Your task to perform on an android device: Open eBay Image 0: 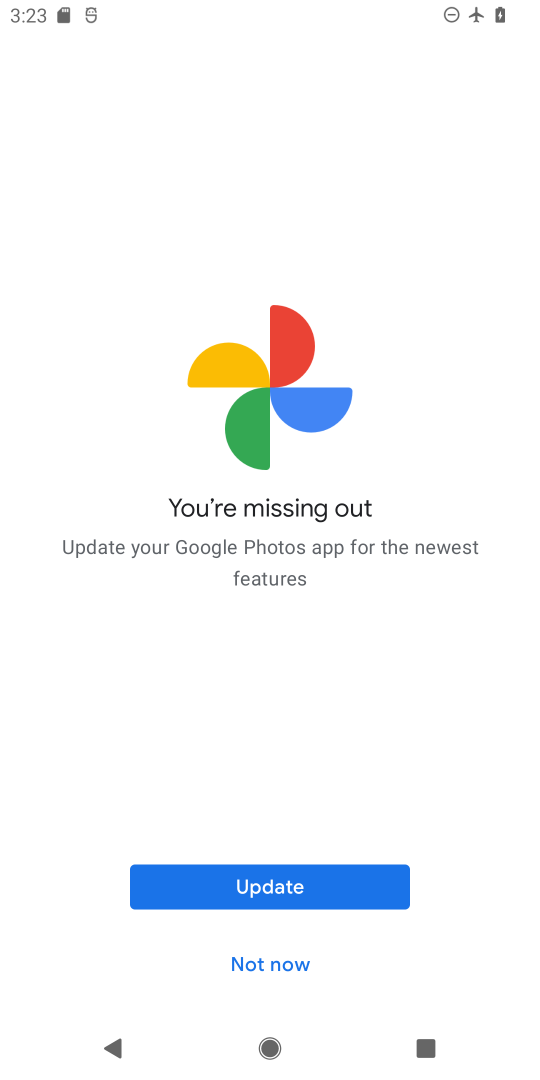
Step 0: press back button
Your task to perform on an android device: Open eBay Image 1: 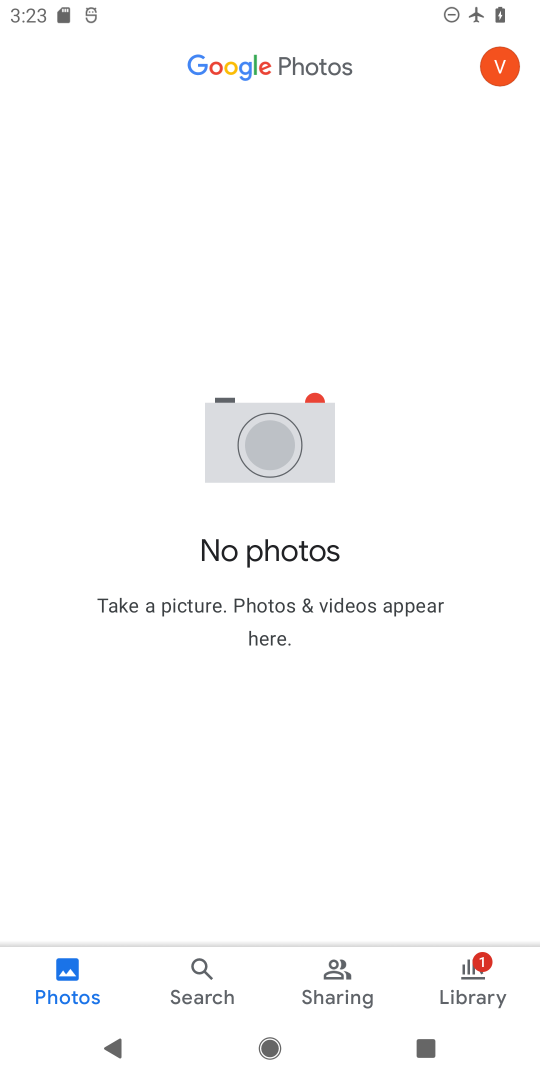
Step 1: press back button
Your task to perform on an android device: Open eBay Image 2: 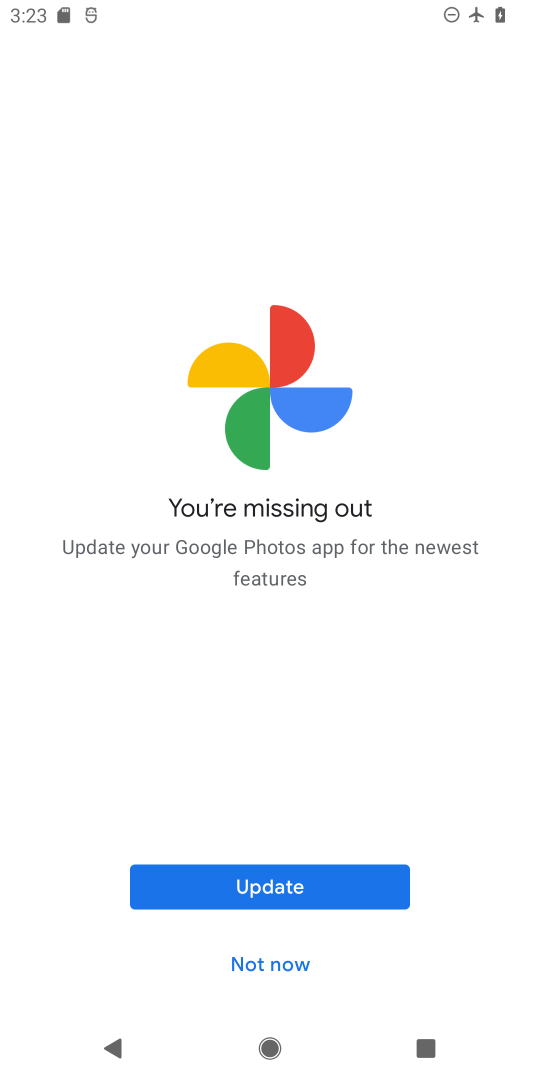
Step 2: press back button
Your task to perform on an android device: Open eBay Image 3: 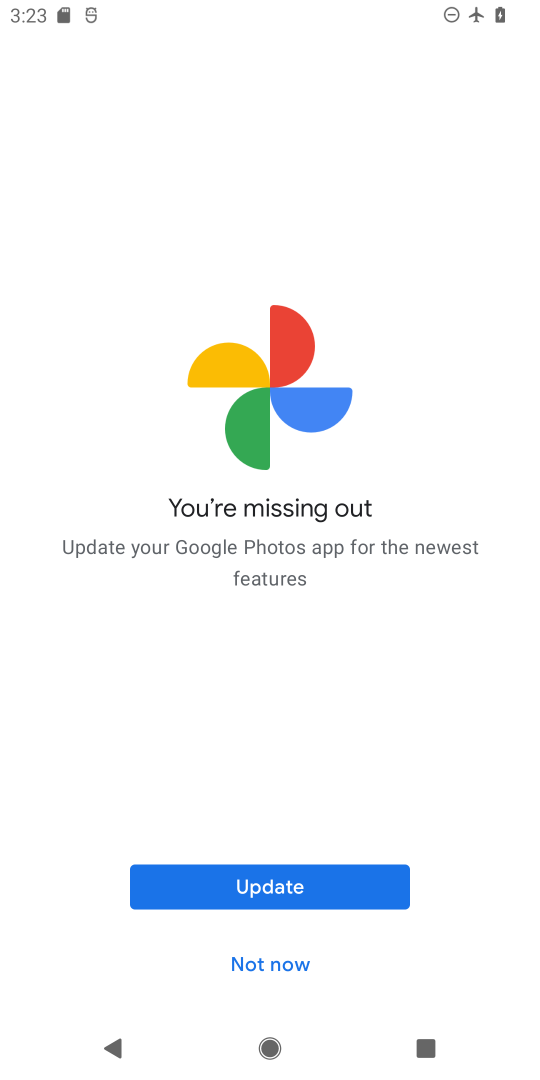
Step 3: press back button
Your task to perform on an android device: Open eBay Image 4: 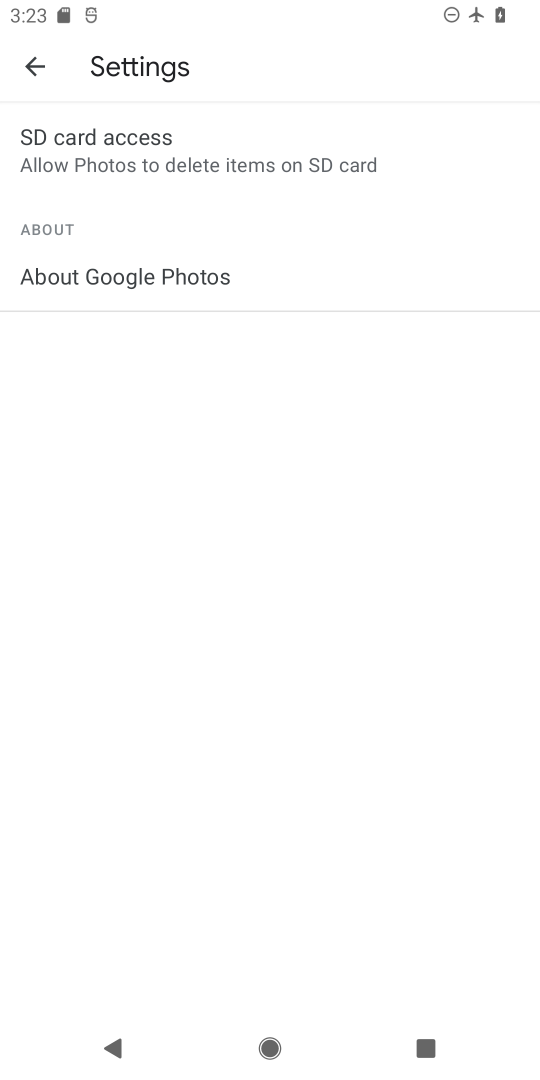
Step 4: press home button
Your task to perform on an android device: Open eBay Image 5: 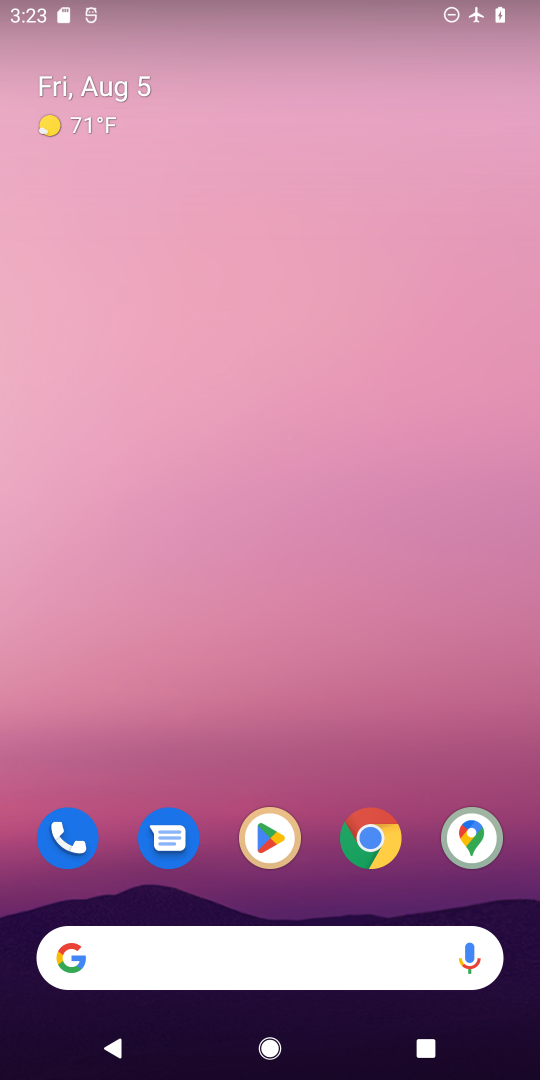
Step 5: click (379, 852)
Your task to perform on an android device: Open eBay Image 6: 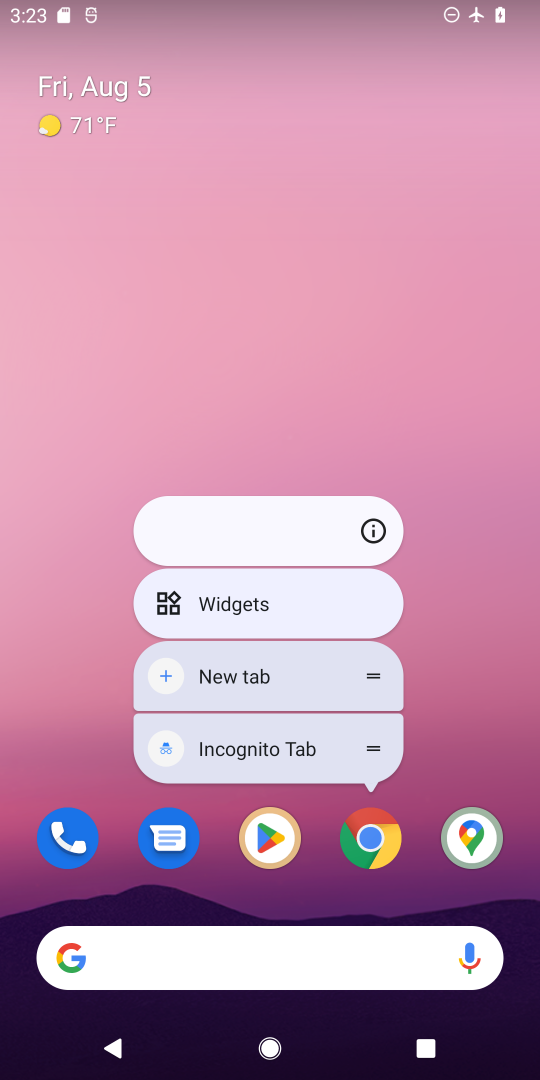
Step 6: click (379, 852)
Your task to perform on an android device: Open eBay Image 7: 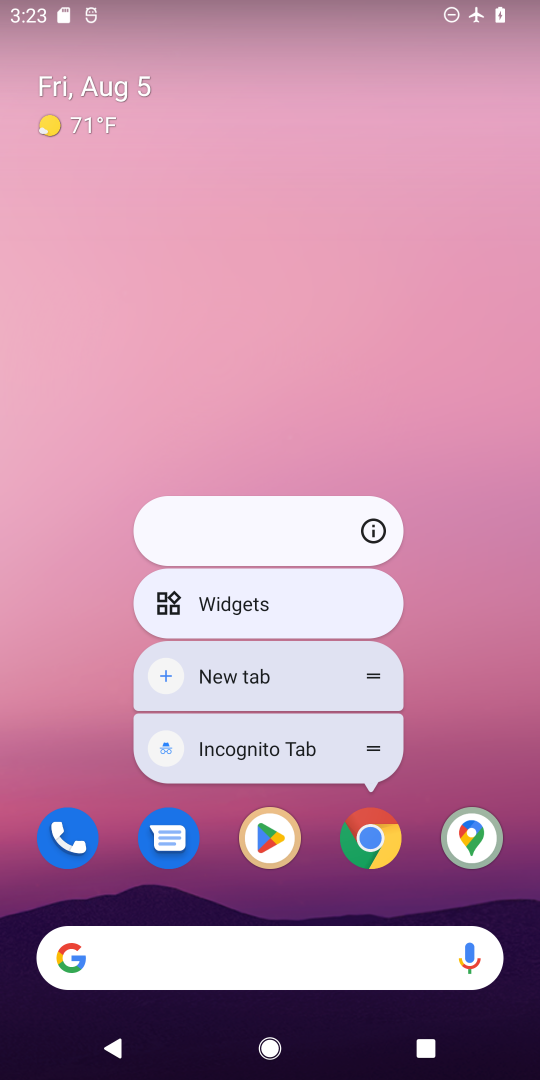
Step 7: click (379, 852)
Your task to perform on an android device: Open eBay Image 8: 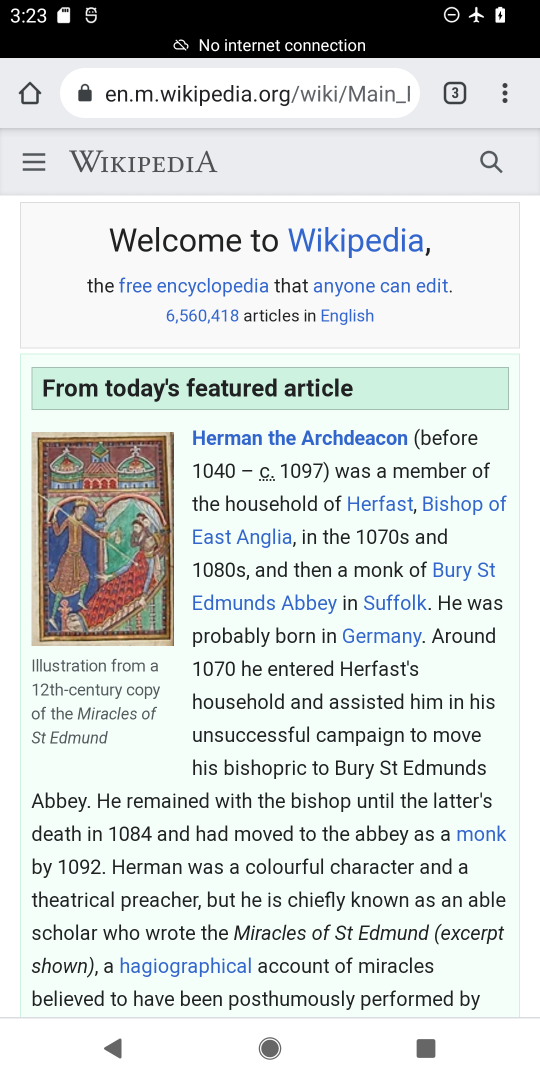
Step 8: click (464, 64)
Your task to perform on an android device: Open eBay Image 9: 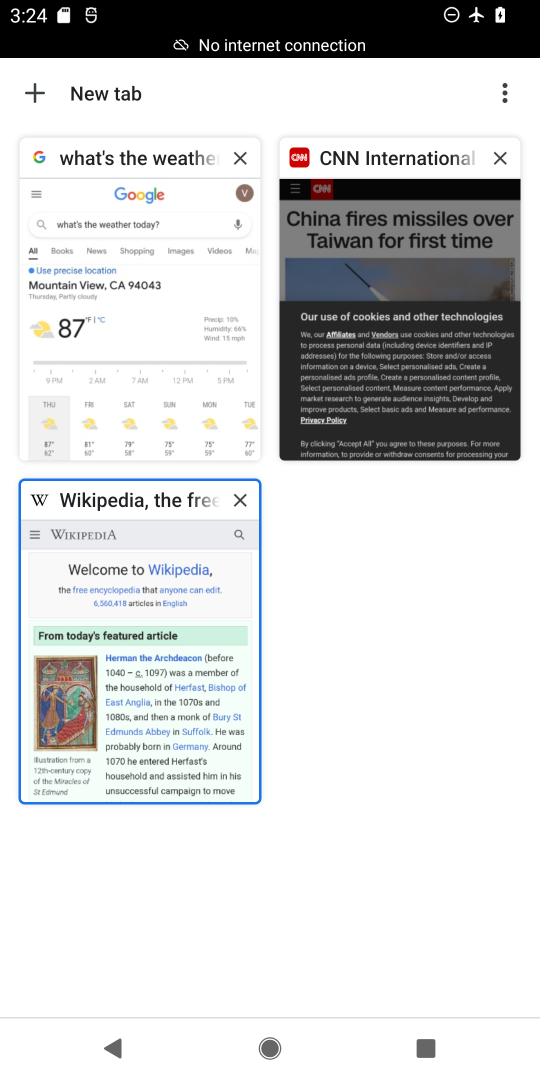
Step 9: click (136, 93)
Your task to perform on an android device: Open eBay Image 10: 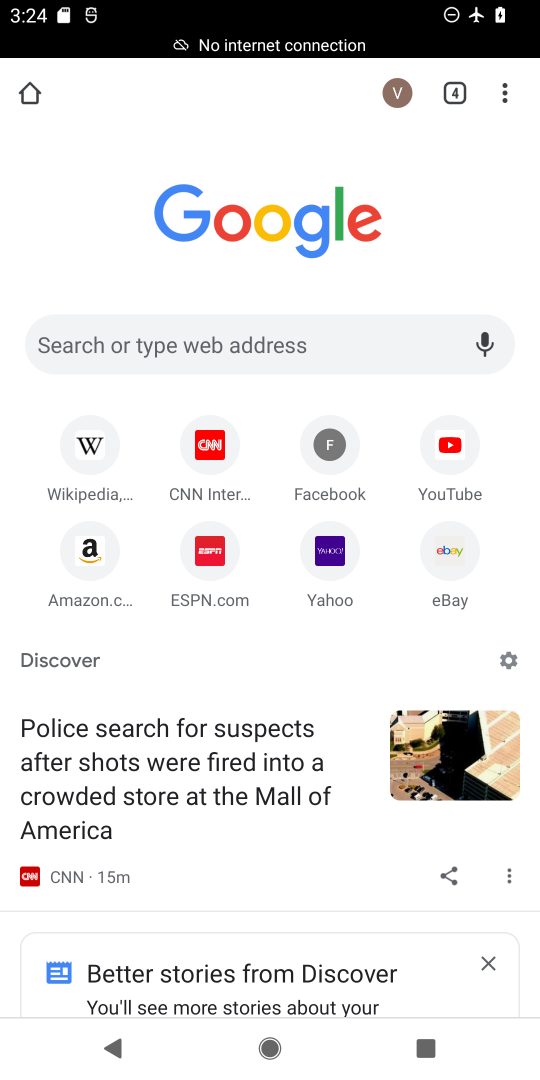
Step 10: click (443, 575)
Your task to perform on an android device: Open eBay Image 11: 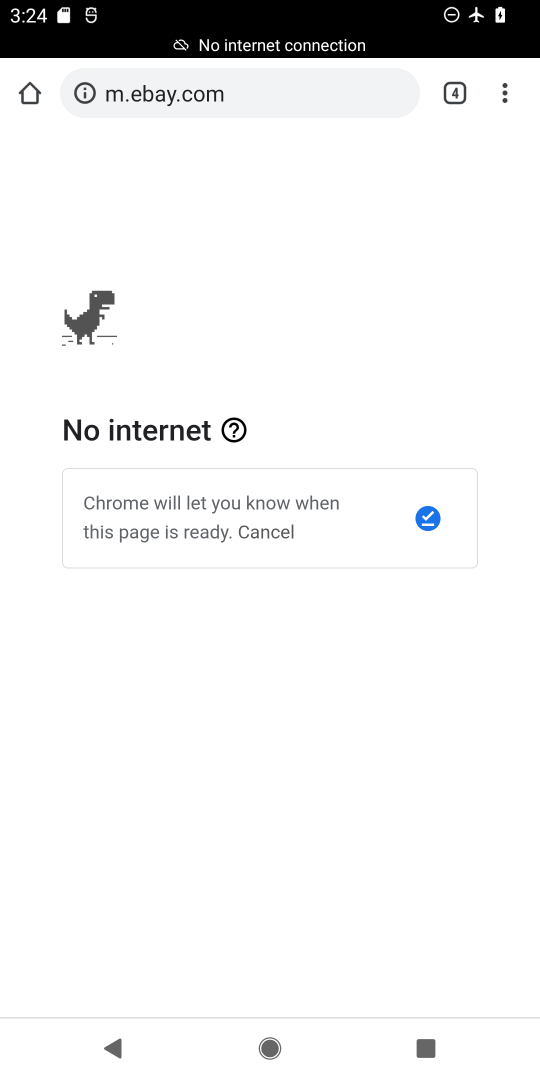
Step 11: task complete